Your task to perform on an android device: Go to Reddit.com Image 0: 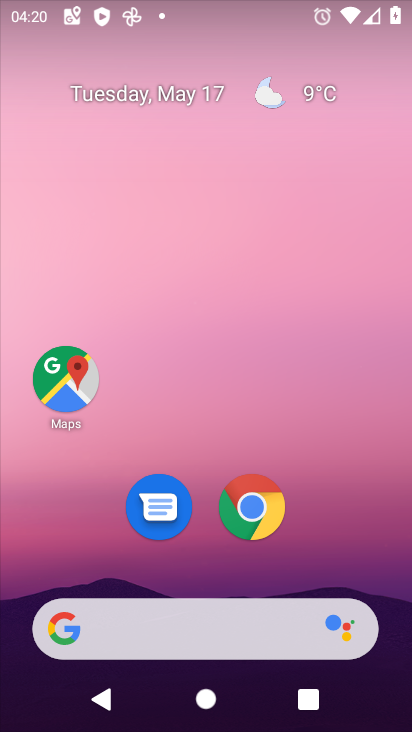
Step 0: click (260, 506)
Your task to perform on an android device: Go to Reddit.com Image 1: 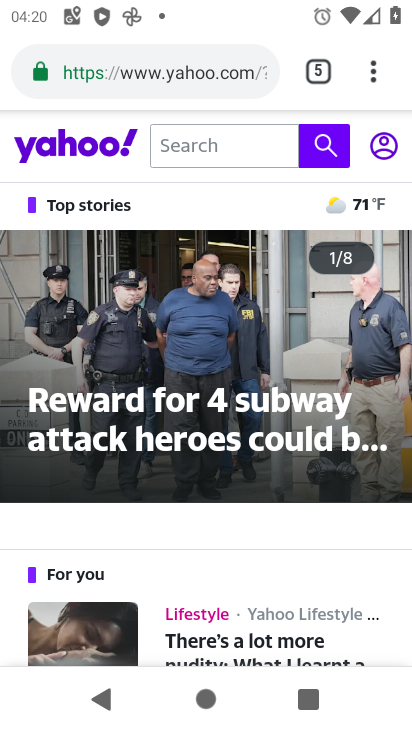
Step 1: click (310, 66)
Your task to perform on an android device: Go to Reddit.com Image 2: 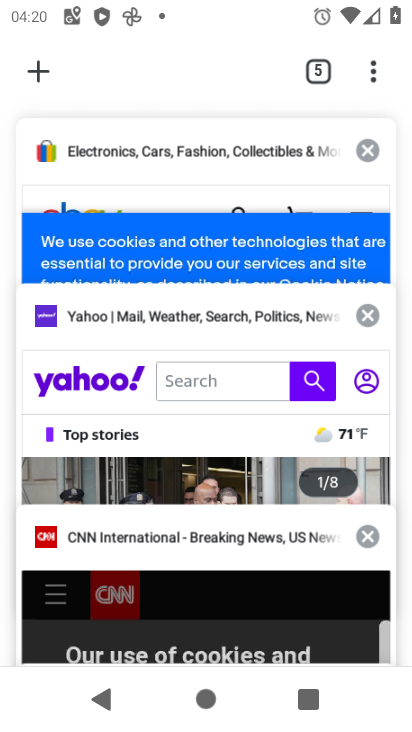
Step 2: click (37, 72)
Your task to perform on an android device: Go to Reddit.com Image 3: 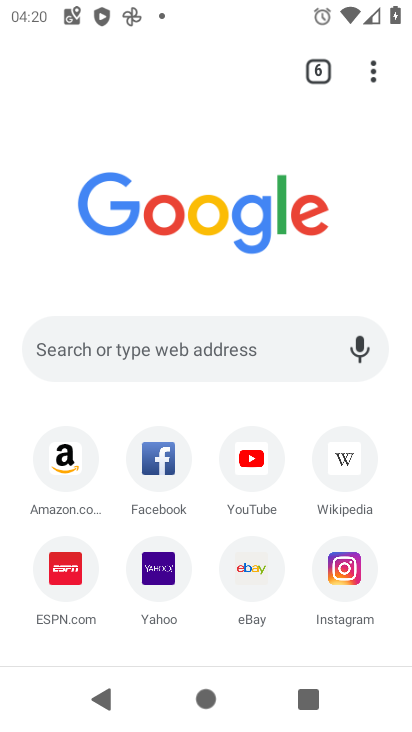
Step 3: click (188, 344)
Your task to perform on an android device: Go to Reddit.com Image 4: 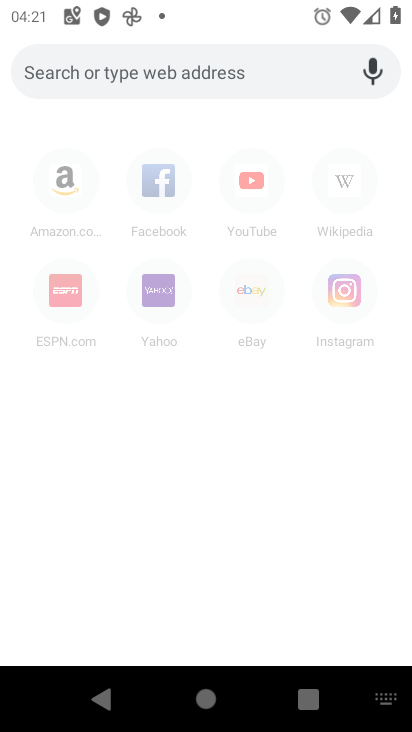
Step 4: type "Reddit.com"
Your task to perform on an android device: Go to Reddit.com Image 5: 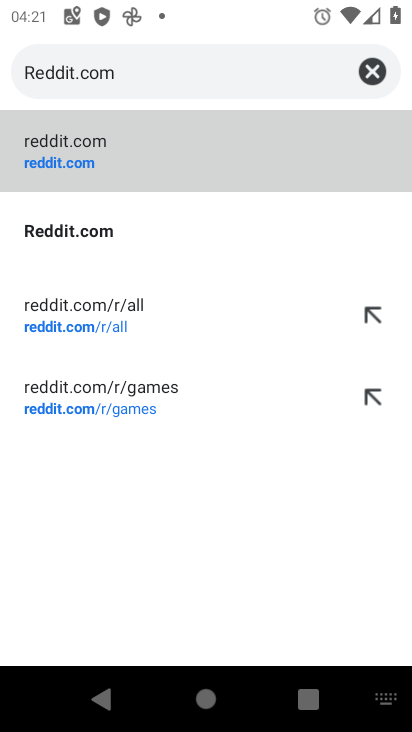
Step 5: click (189, 170)
Your task to perform on an android device: Go to Reddit.com Image 6: 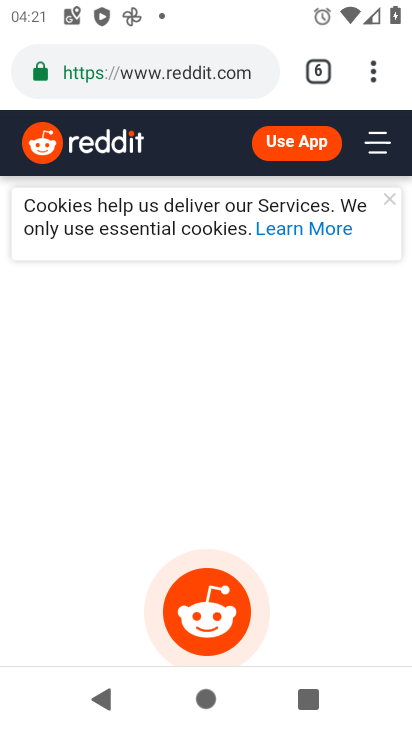
Step 6: task complete